Your task to perform on an android device: Play the last video I watched on Youtube Image 0: 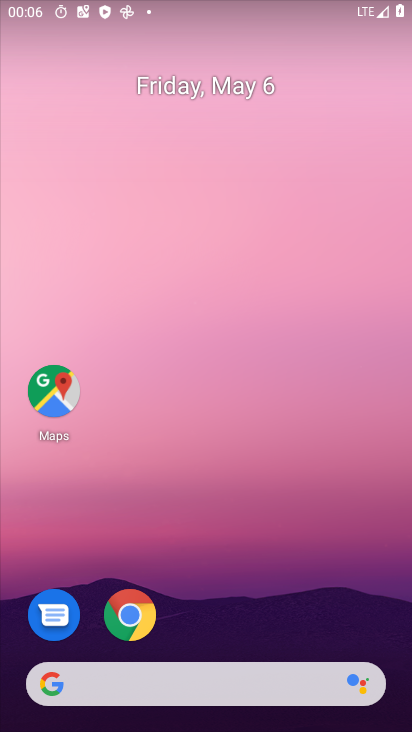
Step 0: drag from (272, 588) to (308, 105)
Your task to perform on an android device: Play the last video I watched on Youtube Image 1: 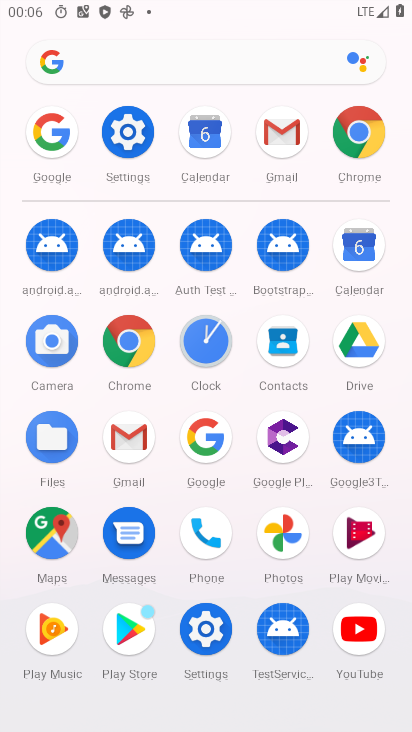
Step 1: click (366, 641)
Your task to perform on an android device: Play the last video I watched on Youtube Image 2: 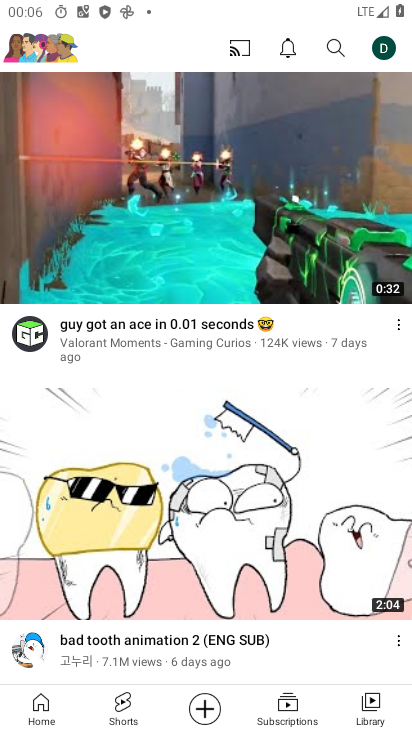
Step 2: click (338, 53)
Your task to perform on an android device: Play the last video I watched on Youtube Image 3: 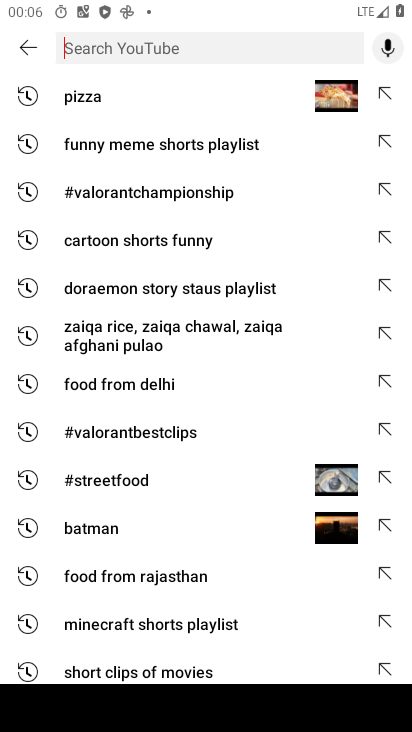
Step 3: click (106, 103)
Your task to perform on an android device: Play the last video I watched on Youtube Image 4: 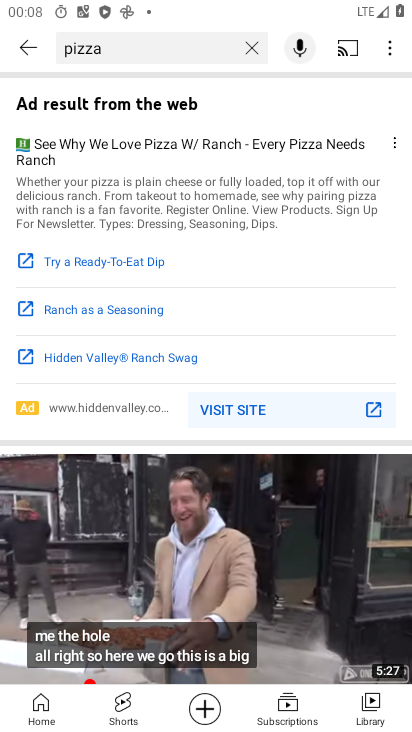
Step 4: task complete